Your task to perform on an android device: choose inbox layout in the gmail app Image 0: 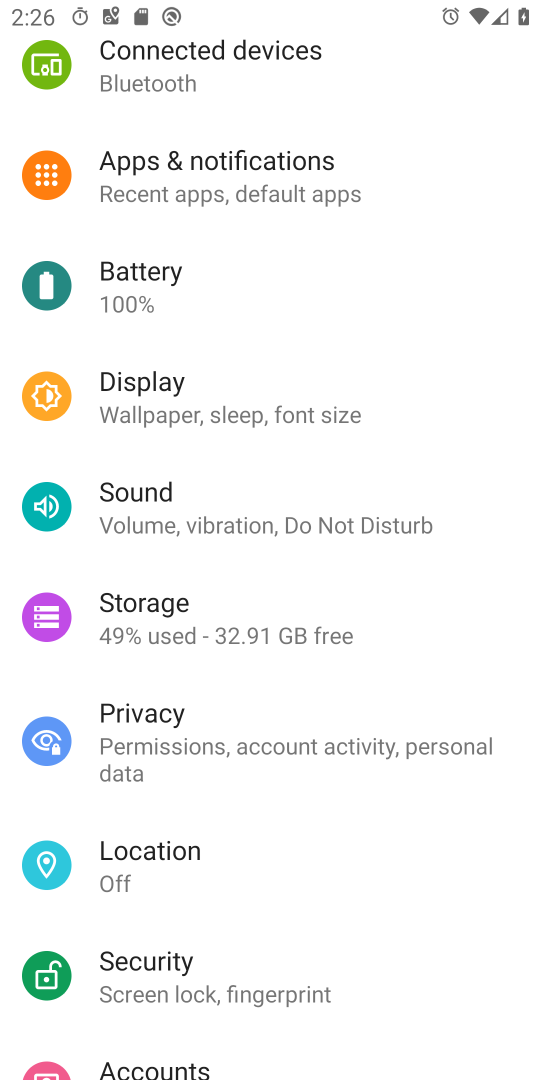
Step 0: press home button
Your task to perform on an android device: choose inbox layout in the gmail app Image 1: 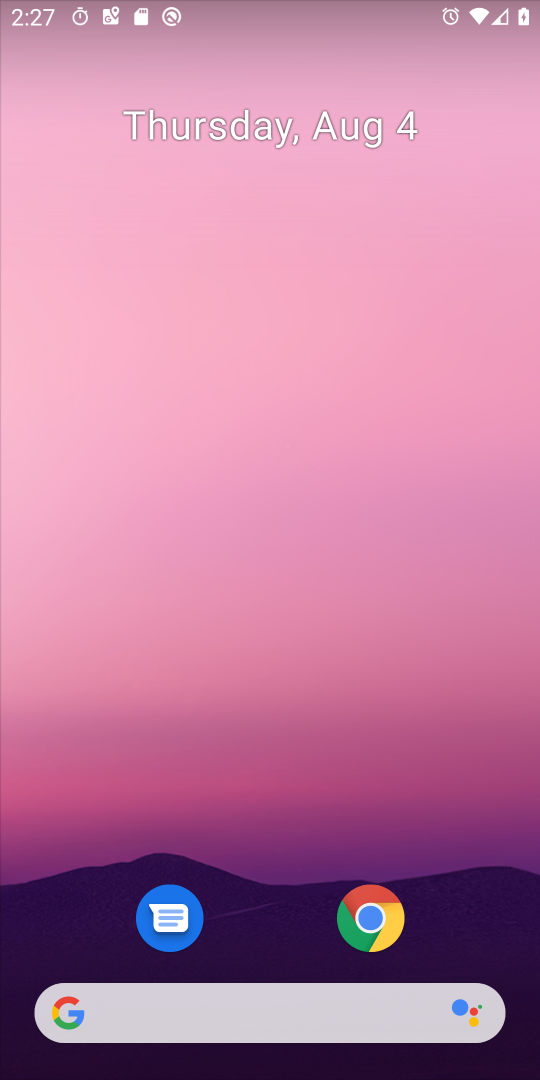
Step 1: drag from (266, 928) to (261, 347)
Your task to perform on an android device: choose inbox layout in the gmail app Image 2: 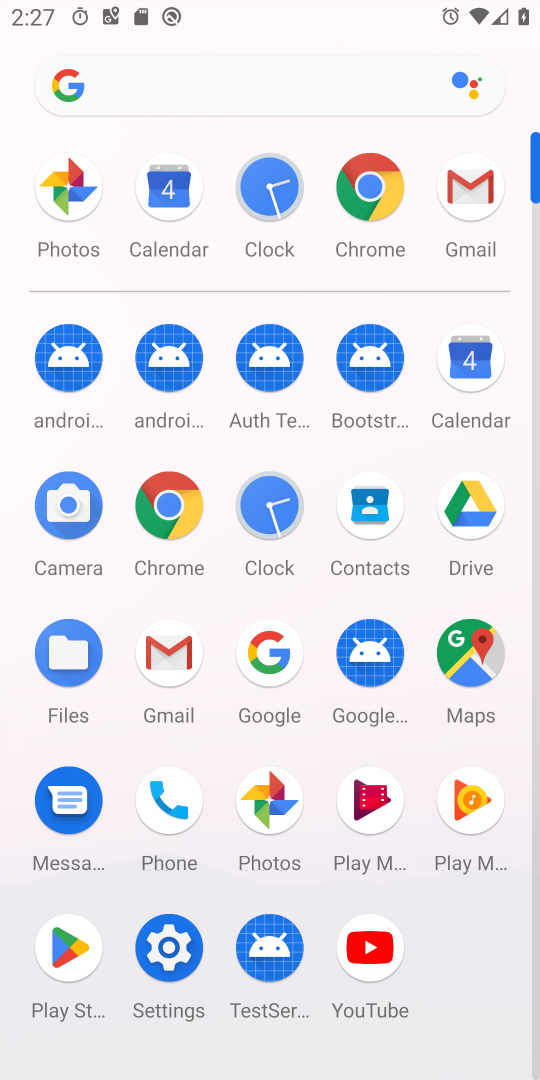
Step 2: click (475, 198)
Your task to perform on an android device: choose inbox layout in the gmail app Image 3: 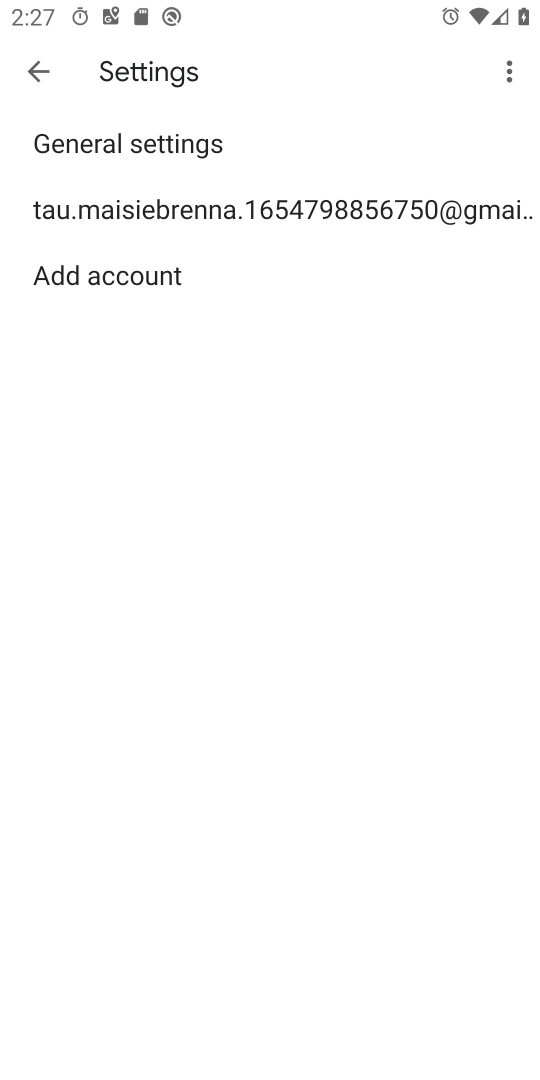
Step 3: click (184, 198)
Your task to perform on an android device: choose inbox layout in the gmail app Image 4: 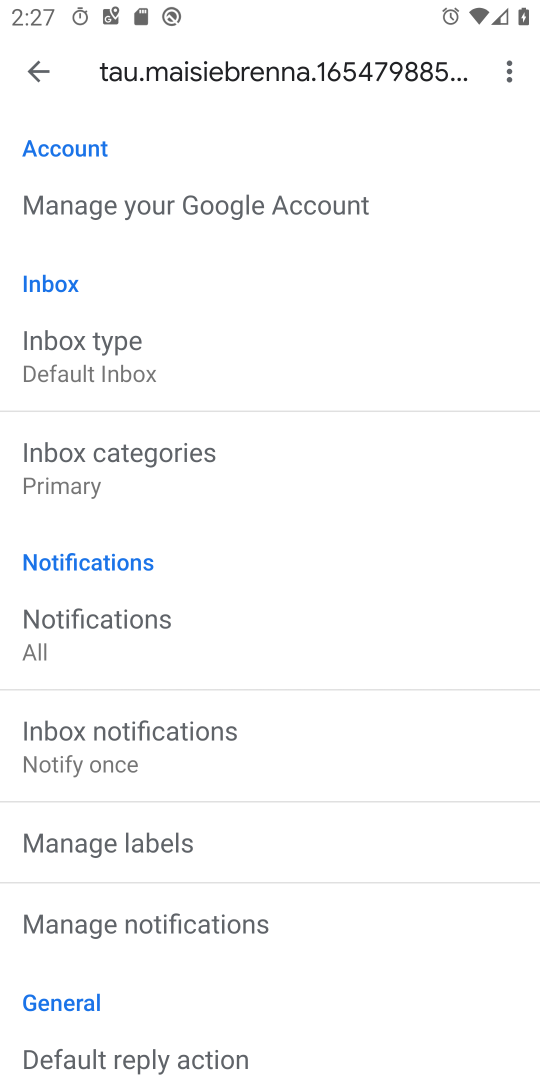
Step 4: click (167, 350)
Your task to perform on an android device: choose inbox layout in the gmail app Image 5: 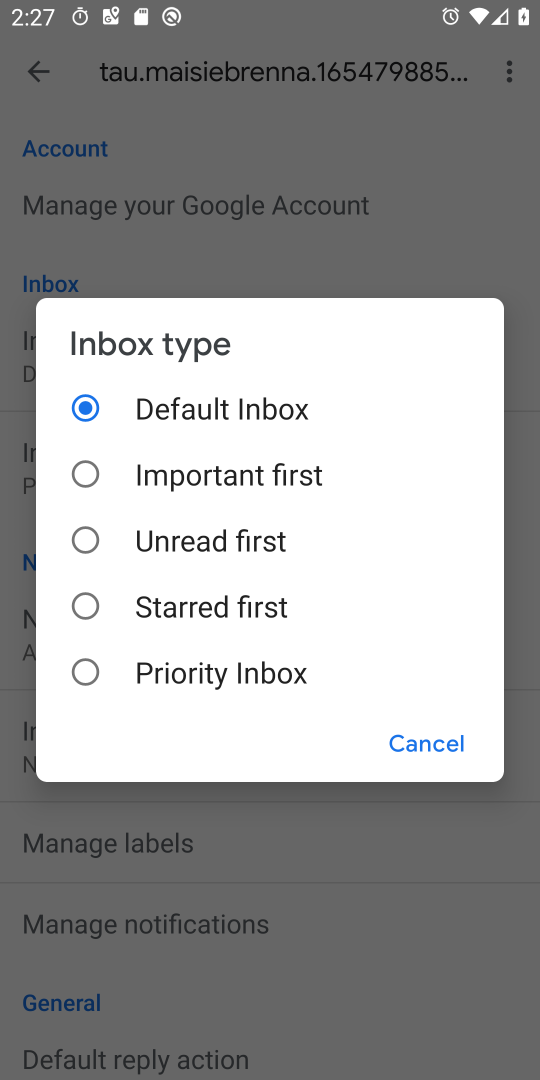
Step 5: click (196, 678)
Your task to perform on an android device: choose inbox layout in the gmail app Image 6: 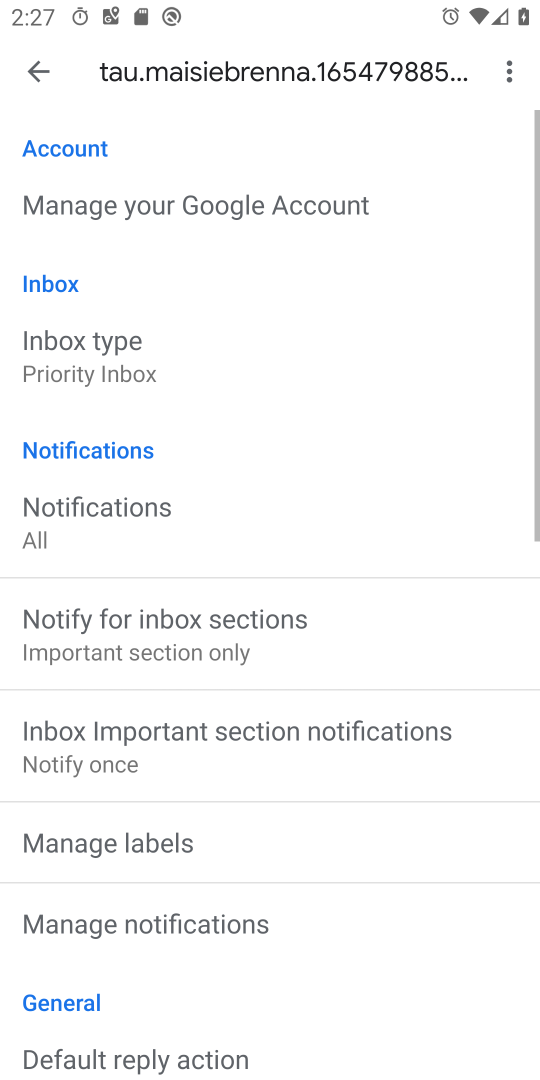
Step 6: task complete